Your task to perform on an android device: check out phone information Image 0: 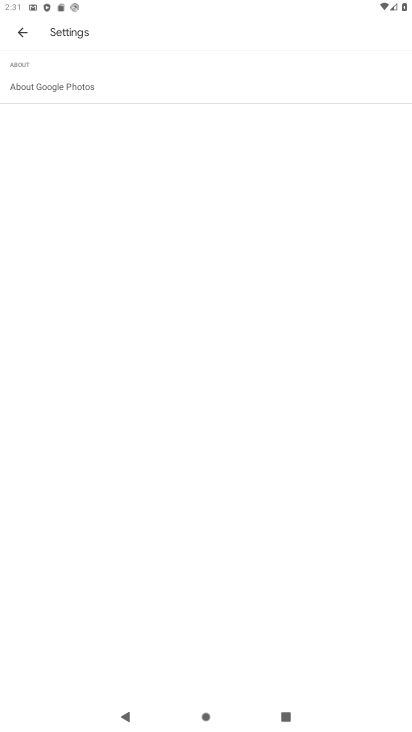
Step 0: press home button
Your task to perform on an android device: check out phone information Image 1: 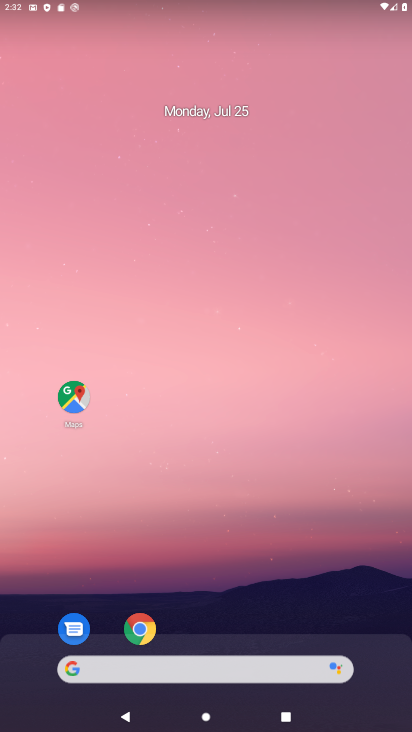
Step 1: drag from (220, 360) to (223, 6)
Your task to perform on an android device: check out phone information Image 2: 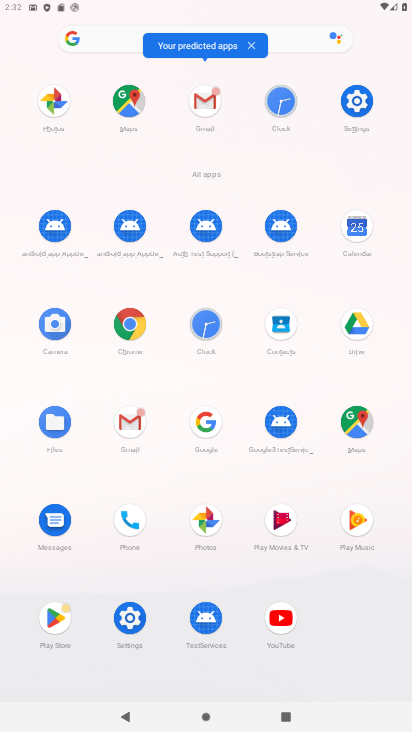
Step 2: click (365, 112)
Your task to perform on an android device: check out phone information Image 3: 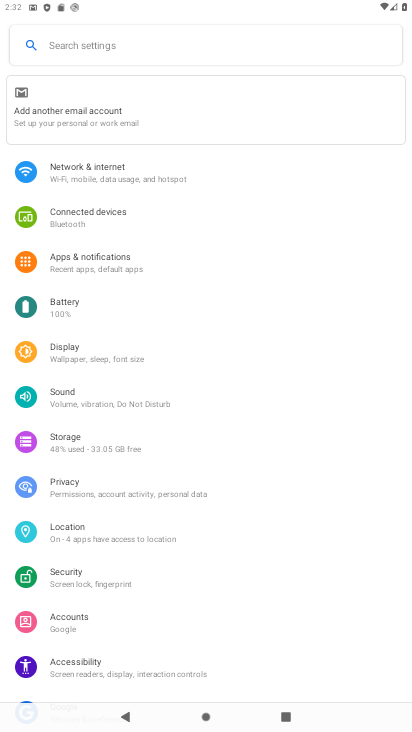
Step 3: drag from (205, 577) to (183, 141)
Your task to perform on an android device: check out phone information Image 4: 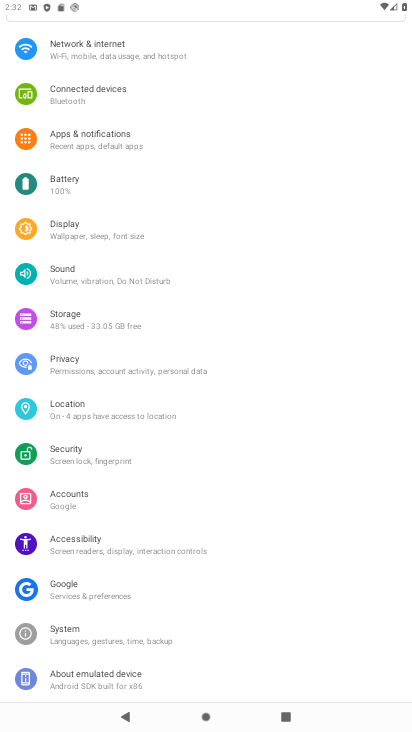
Step 4: click (105, 676)
Your task to perform on an android device: check out phone information Image 5: 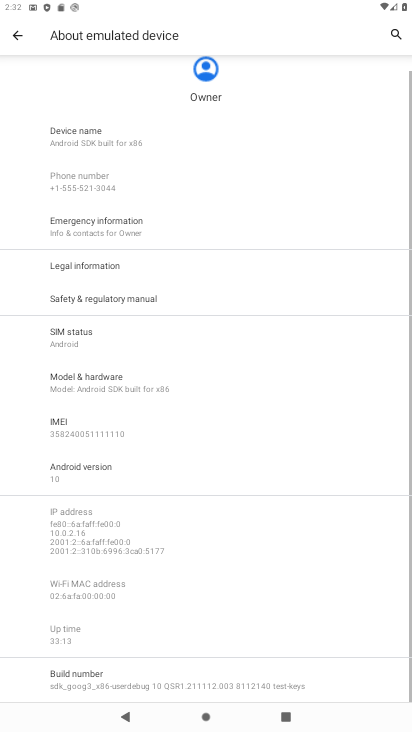
Step 5: task complete